Your task to perform on an android device: Open Google Chrome and open the bookmarks view Image 0: 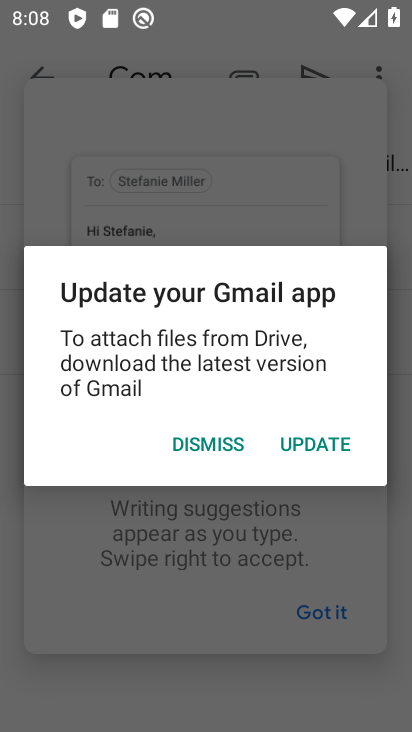
Step 0: press back button
Your task to perform on an android device: Open Google Chrome and open the bookmarks view Image 1: 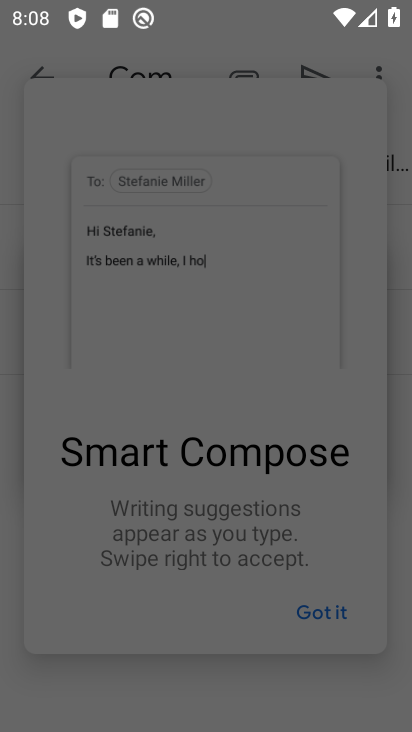
Step 1: press back button
Your task to perform on an android device: Open Google Chrome and open the bookmarks view Image 2: 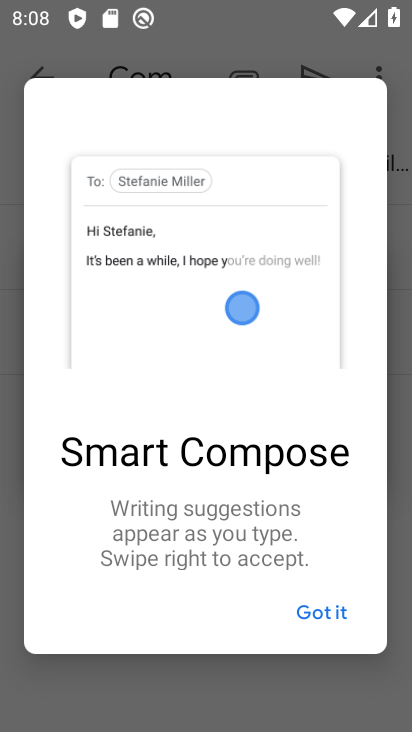
Step 2: press back button
Your task to perform on an android device: Open Google Chrome and open the bookmarks view Image 3: 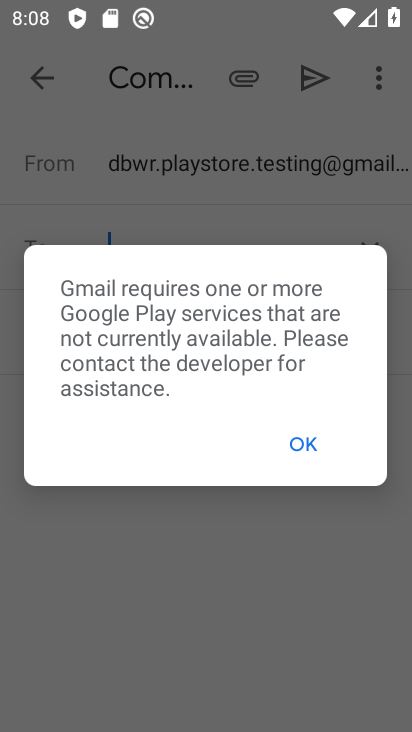
Step 3: press back button
Your task to perform on an android device: Open Google Chrome and open the bookmarks view Image 4: 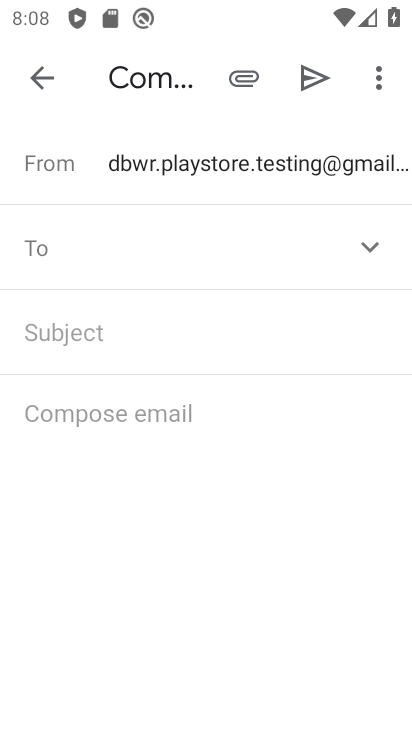
Step 4: press back button
Your task to perform on an android device: Open Google Chrome and open the bookmarks view Image 5: 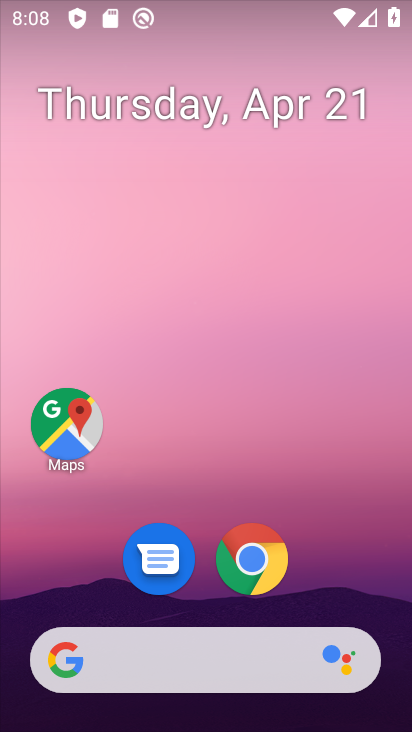
Step 5: click (252, 565)
Your task to perform on an android device: Open Google Chrome and open the bookmarks view Image 6: 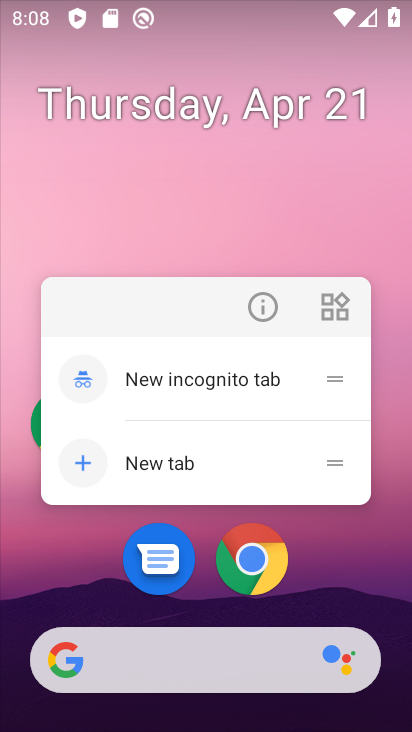
Step 6: click (265, 579)
Your task to perform on an android device: Open Google Chrome and open the bookmarks view Image 7: 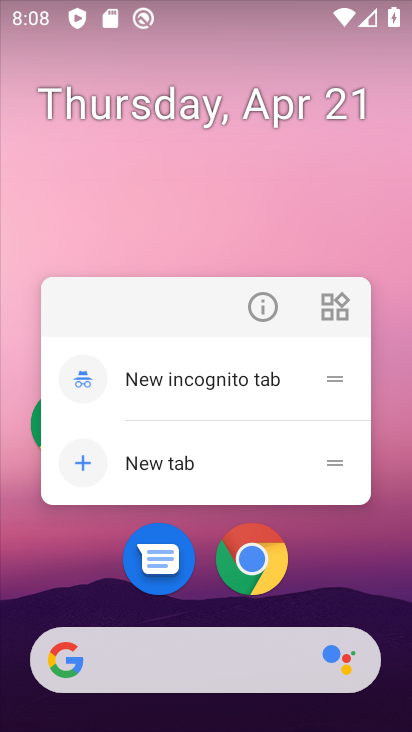
Step 7: click (265, 579)
Your task to perform on an android device: Open Google Chrome and open the bookmarks view Image 8: 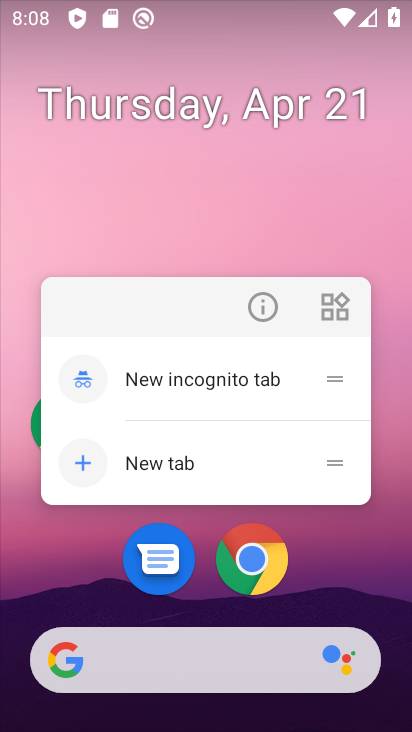
Step 8: click (265, 568)
Your task to perform on an android device: Open Google Chrome and open the bookmarks view Image 9: 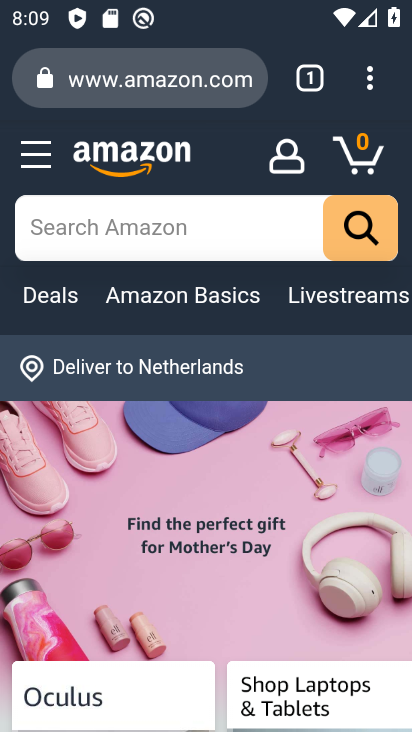
Step 9: task complete